Your task to perform on an android device: What's the weather? Image 0: 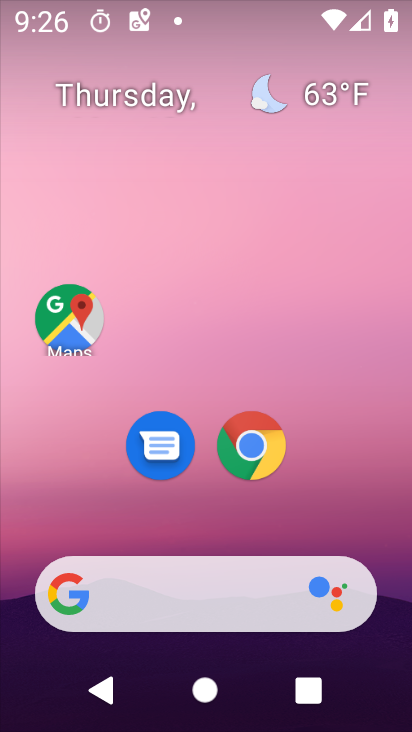
Step 0: drag from (199, 507) to (196, 199)
Your task to perform on an android device: What's the weather? Image 1: 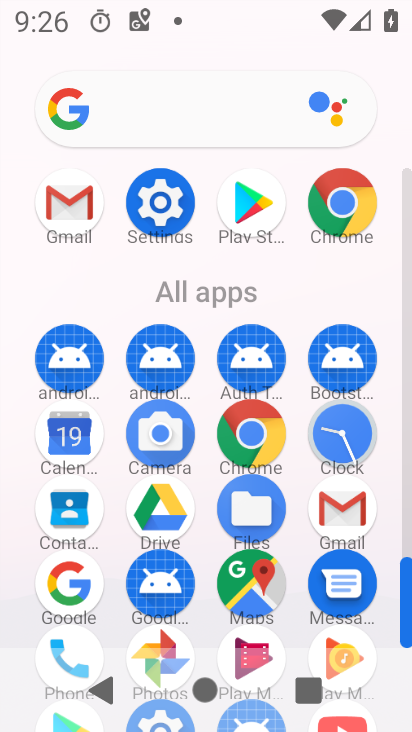
Step 1: click (63, 592)
Your task to perform on an android device: What's the weather? Image 2: 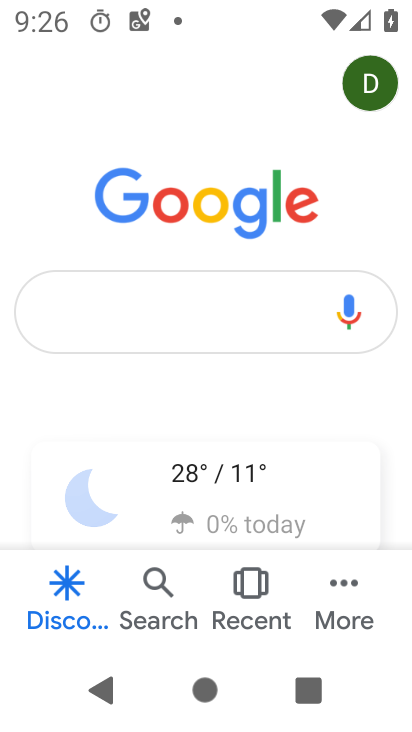
Step 2: click (226, 512)
Your task to perform on an android device: What's the weather? Image 3: 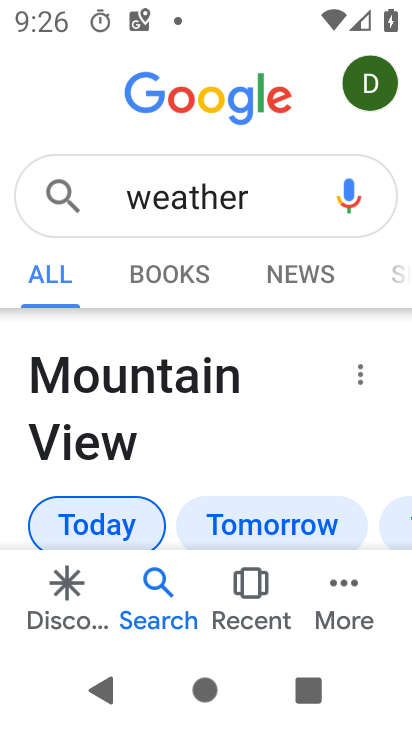
Step 3: task complete